Your task to perform on an android device: turn off javascript in the chrome app Image 0: 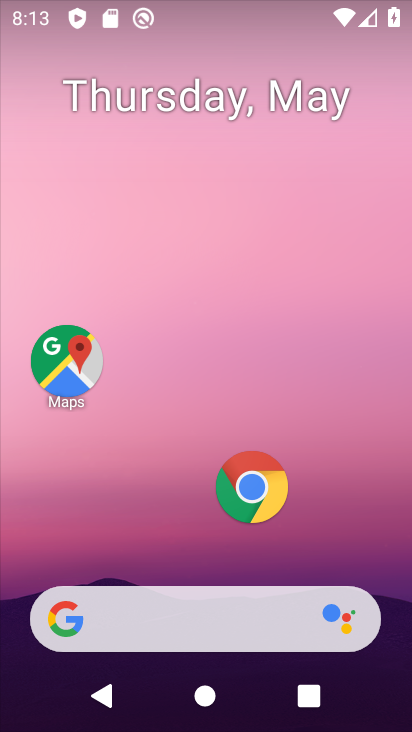
Step 0: drag from (277, 668) to (171, 107)
Your task to perform on an android device: turn off javascript in the chrome app Image 1: 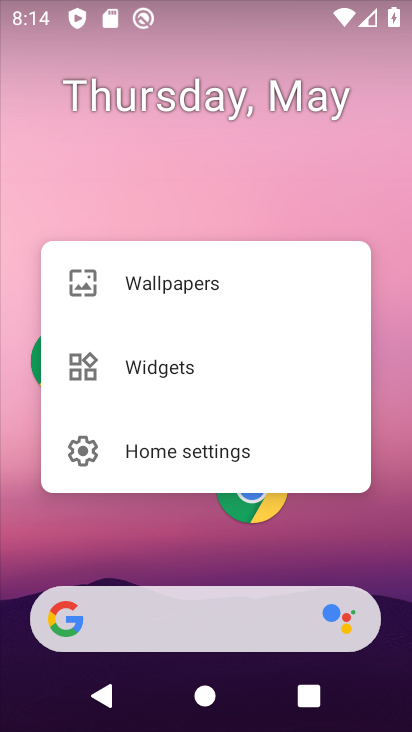
Step 1: click (204, 152)
Your task to perform on an android device: turn off javascript in the chrome app Image 2: 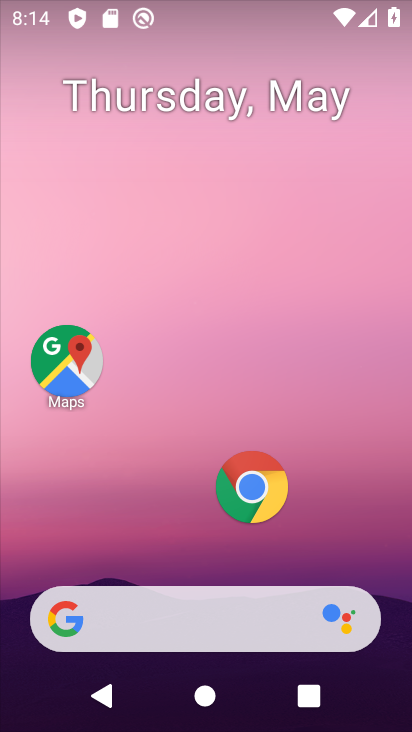
Step 2: click (205, 154)
Your task to perform on an android device: turn off javascript in the chrome app Image 3: 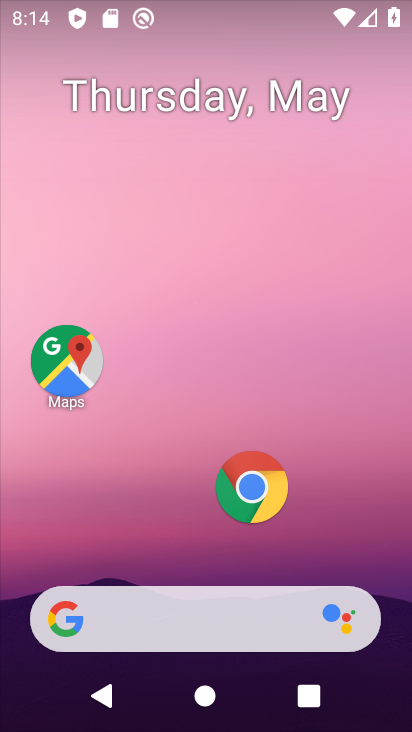
Step 3: drag from (295, 512) to (221, 85)
Your task to perform on an android device: turn off javascript in the chrome app Image 4: 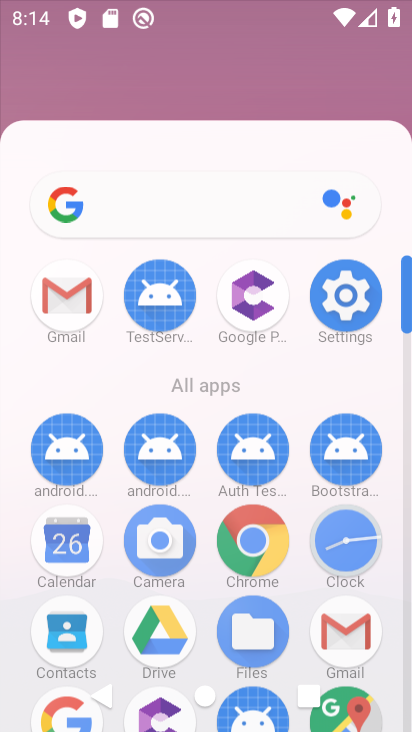
Step 4: drag from (395, 570) to (286, 183)
Your task to perform on an android device: turn off javascript in the chrome app Image 5: 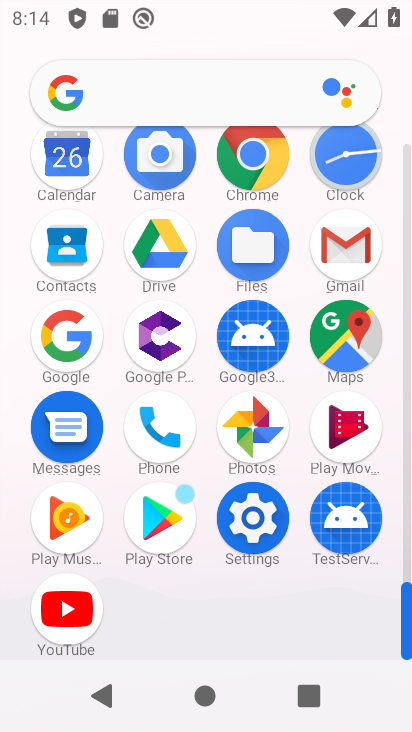
Step 5: click (247, 172)
Your task to perform on an android device: turn off javascript in the chrome app Image 6: 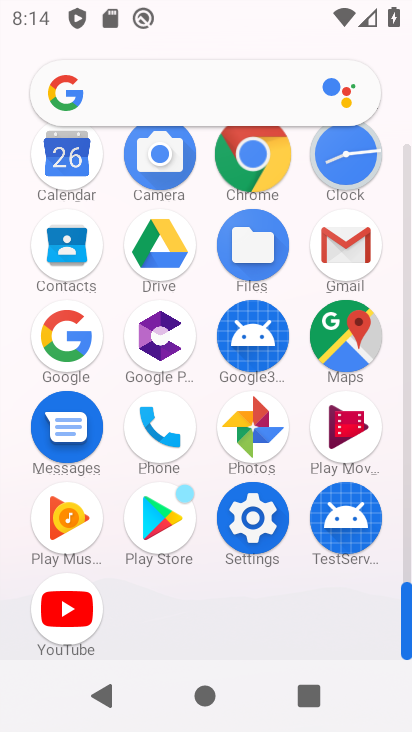
Step 6: click (247, 171)
Your task to perform on an android device: turn off javascript in the chrome app Image 7: 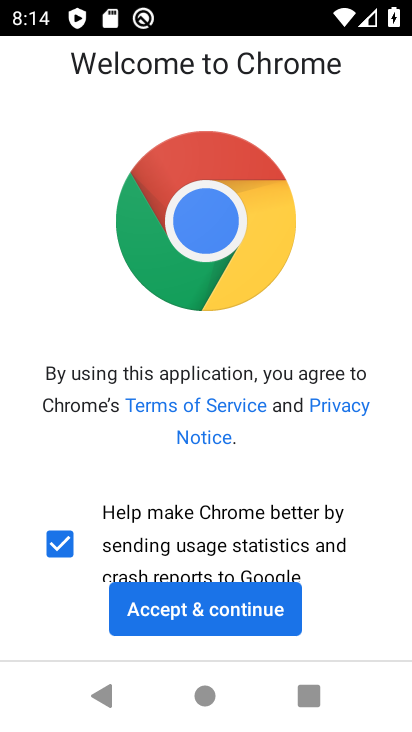
Step 7: click (216, 564)
Your task to perform on an android device: turn off javascript in the chrome app Image 8: 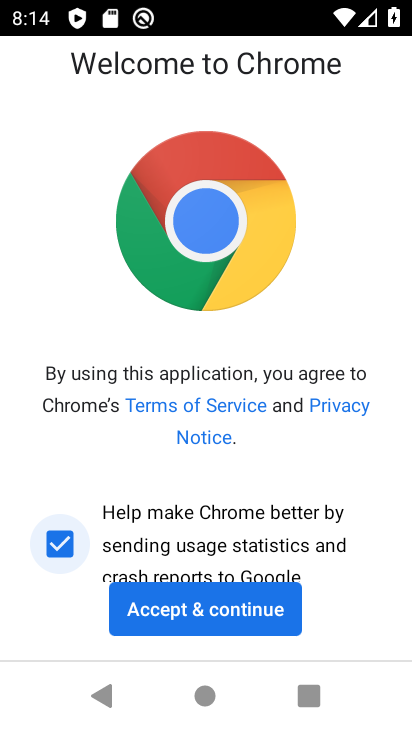
Step 8: click (231, 613)
Your task to perform on an android device: turn off javascript in the chrome app Image 9: 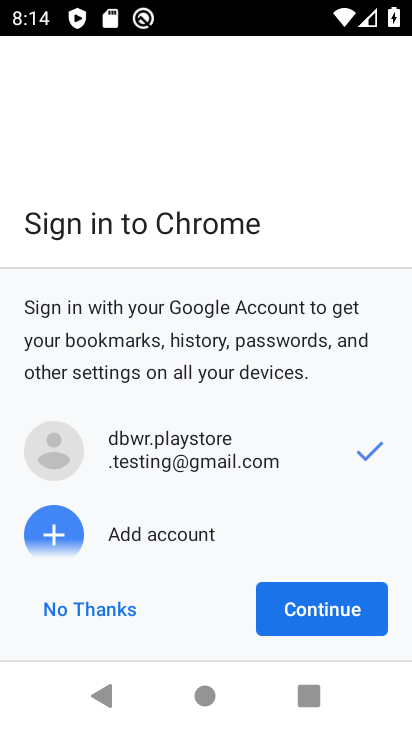
Step 9: click (340, 609)
Your task to perform on an android device: turn off javascript in the chrome app Image 10: 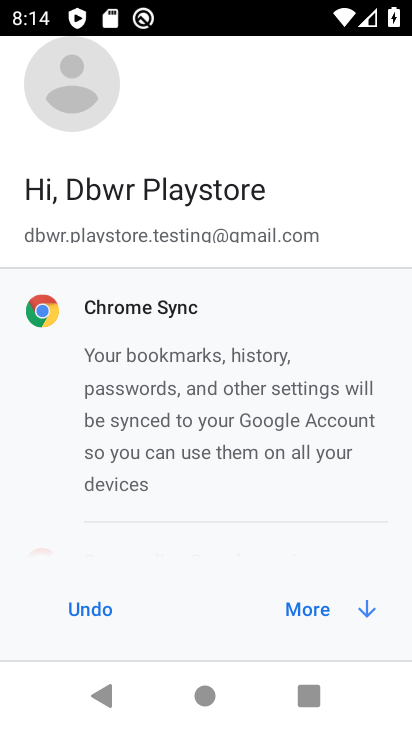
Step 10: click (340, 615)
Your task to perform on an android device: turn off javascript in the chrome app Image 11: 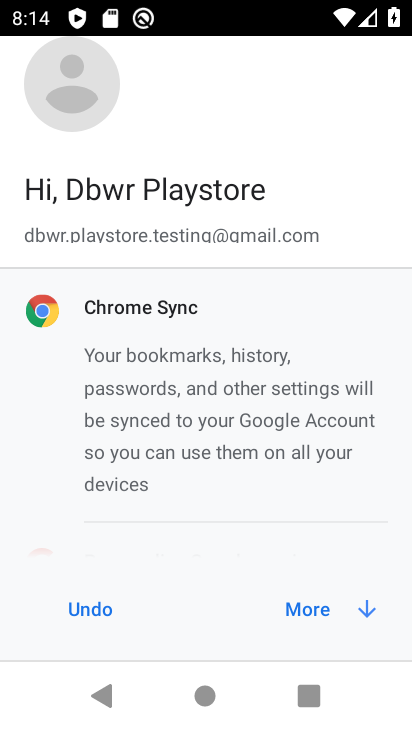
Step 11: click (339, 603)
Your task to perform on an android device: turn off javascript in the chrome app Image 12: 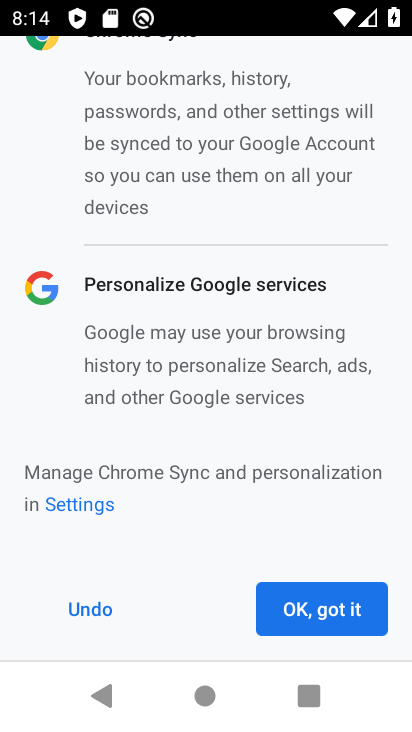
Step 12: click (344, 606)
Your task to perform on an android device: turn off javascript in the chrome app Image 13: 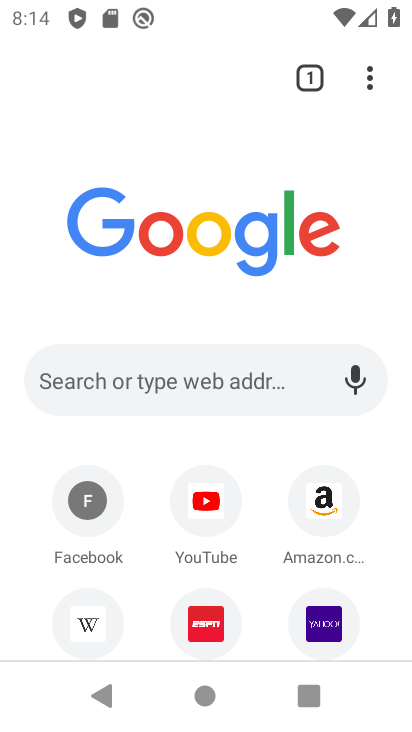
Step 13: drag from (368, 72) to (101, 556)
Your task to perform on an android device: turn off javascript in the chrome app Image 14: 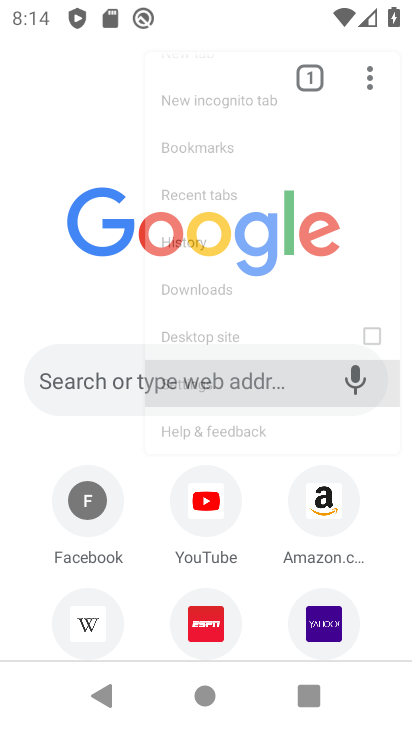
Step 14: click (97, 552)
Your task to perform on an android device: turn off javascript in the chrome app Image 15: 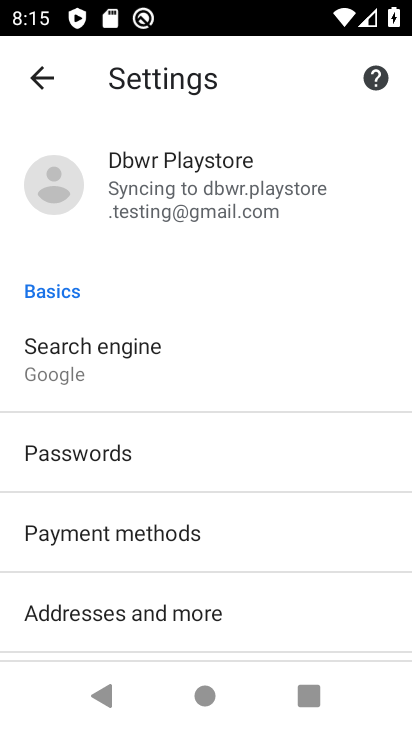
Step 15: drag from (198, 496) to (168, 129)
Your task to perform on an android device: turn off javascript in the chrome app Image 16: 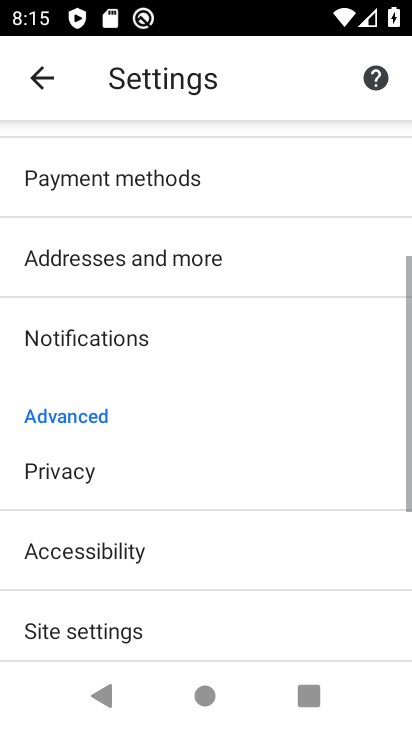
Step 16: click (115, 87)
Your task to perform on an android device: turn off javascript in the chrome app Image 17: 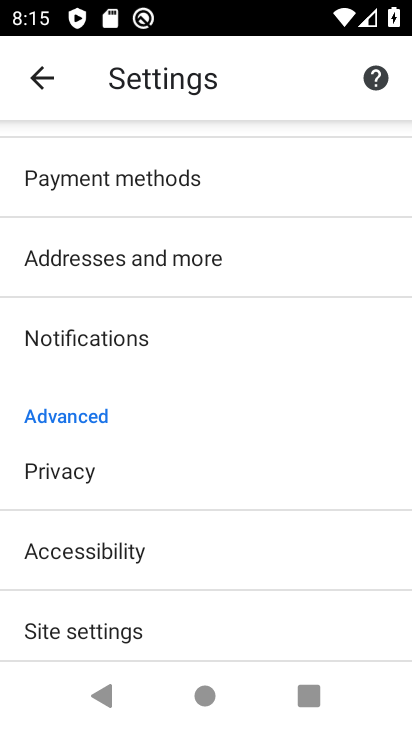
Step 17: drag from (140, 411) to (106, 96)
Your task to perform on an android device: turn off javascript in the chrome app Image 18: 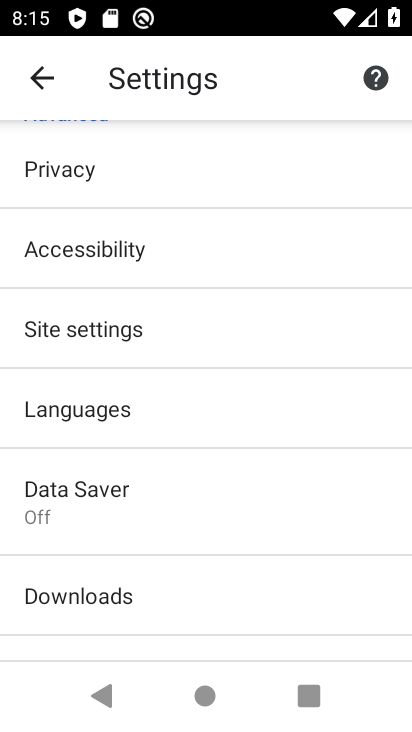
Step 18: click (72, 329)
Your task to perform on an android device: turn off javascript in the chrome app Image 19: 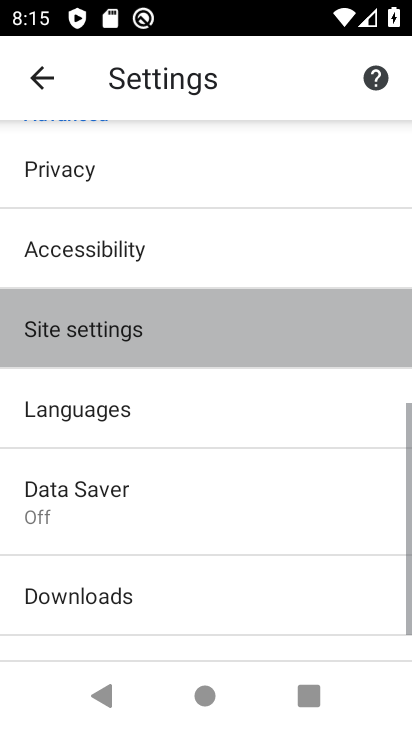
Step 19: click (72, 328)
Your task to perform on an android device: turn off javascript in the chrome app Image 20: 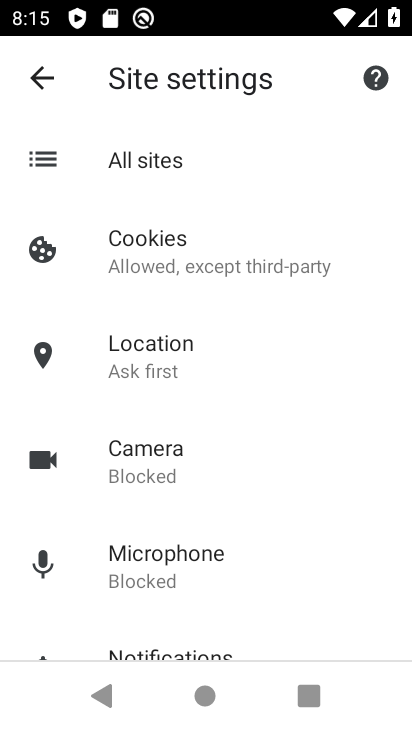
Step 20: drag from (192, 488) to (185, 69)
Your task to perform on an android device: turn off javascript in the chrome app Image 21: 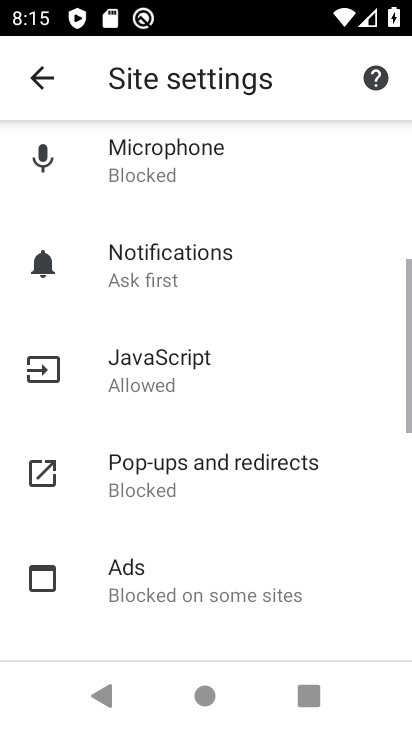
Step 21: drag from (163, 432) to (112, 146)
Your task to perform on an android device: turn off javascript in the chrome app Image 22: 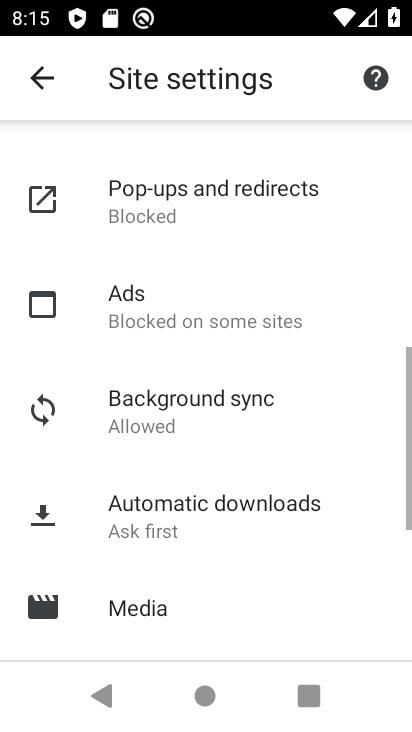
Step 22: drag from (143, 502) to (142, 222)
Your task to perform on an android device: turn off javascript in the chrome app Image 23: 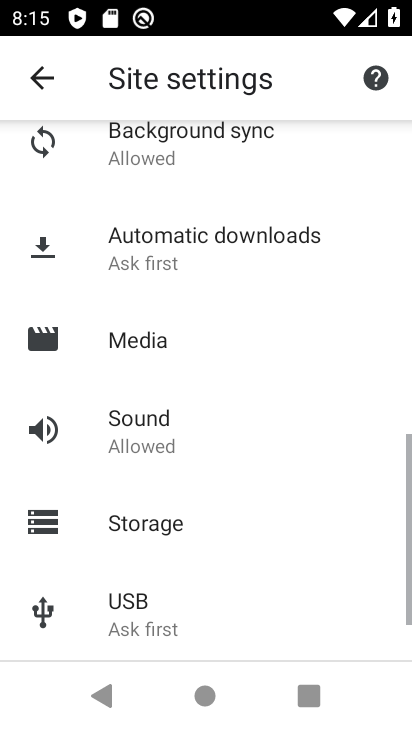
Step 23: drag from (147, 288) to (234, 599)
Your task to perform on an android device: turn off javascript in the chrome app Image 24: 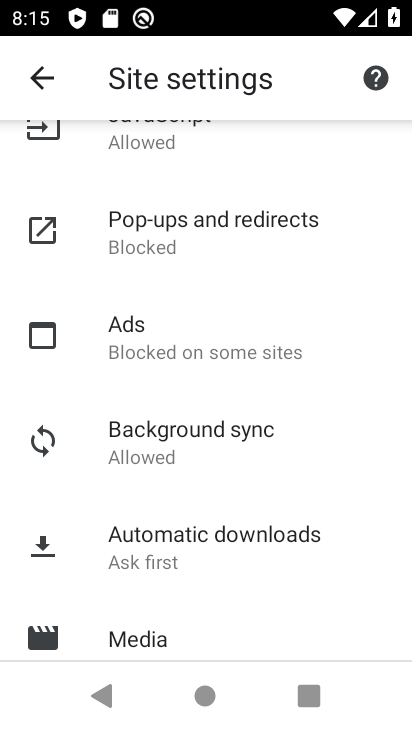
Step 24: click (246, 541)
Your task to perform on an android device: turn off javascript in the chrome app Image 25: 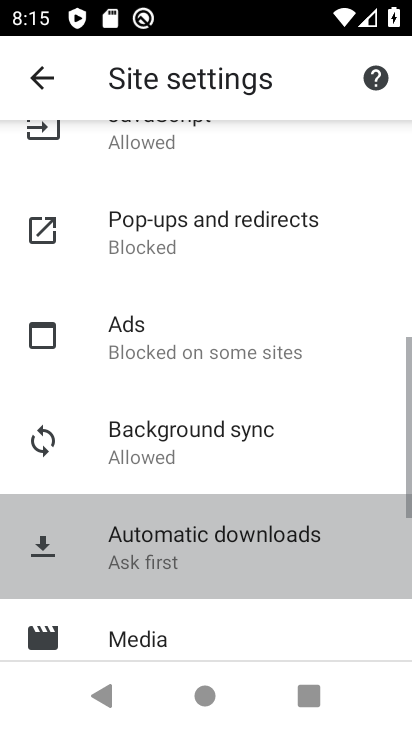
Step 25: click (223, 489)
Your task to perform on an android device: turn off javascript in the chrome app Image 26: 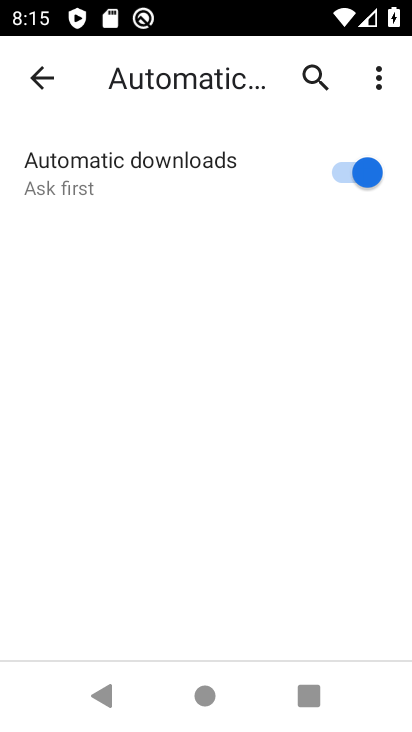
Step 26: click (135, 132)
Your task to perform on an android device: turn off javascript in the chrome app Image 27: 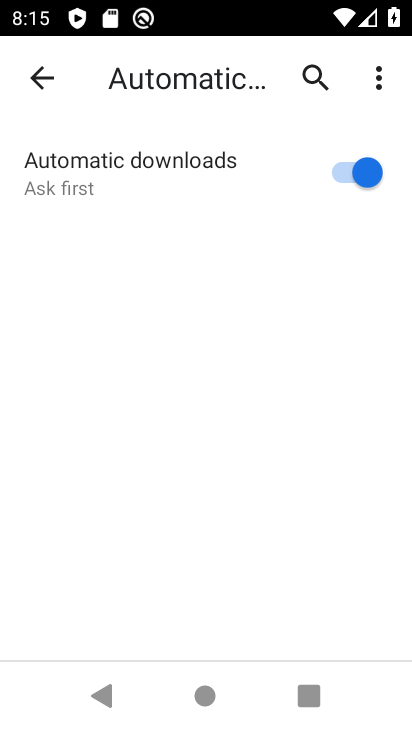
Step 27: click (135, 132)
Your task to perform on an android device: turn off javascript in the chrome app Image 28: 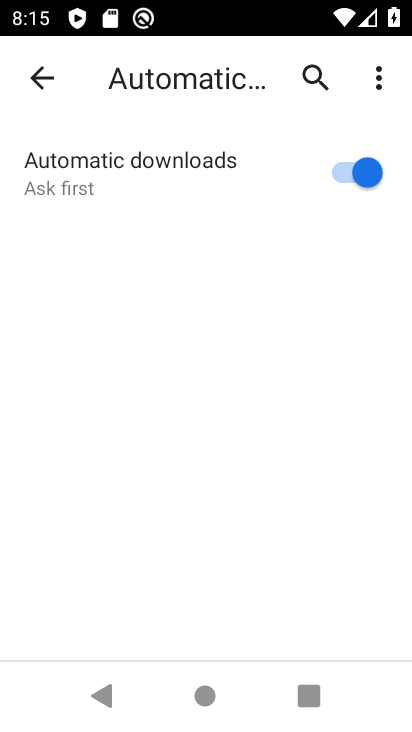
Step 28: click (37, 89)
Your task to perform on an android device: turn off javascript in the chrome app Image 29: 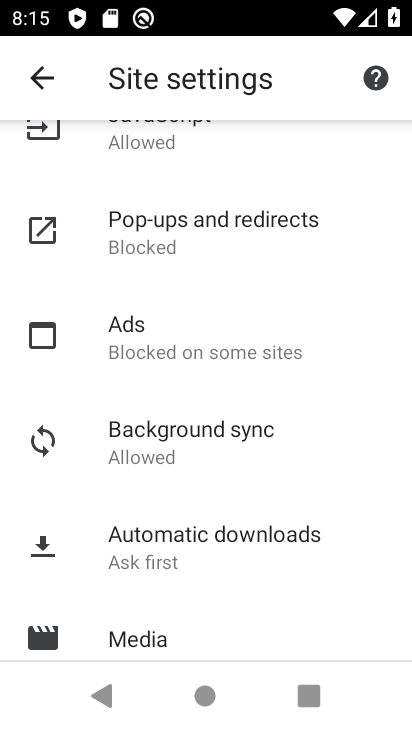
Step 29: drag from (144, 223) to (223, 669)
Your task to perform on an android device: turn off javascript in the chrome app Image 30: 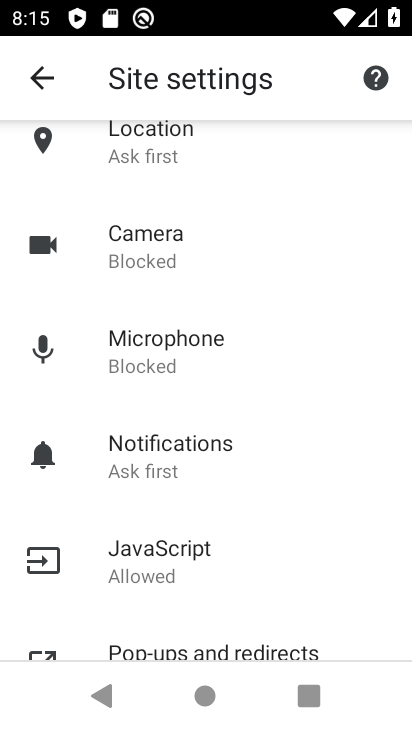
Step 30: click (147, 546)
Your task to perform on an android device: turn off javascript in the chrome app Image 31: 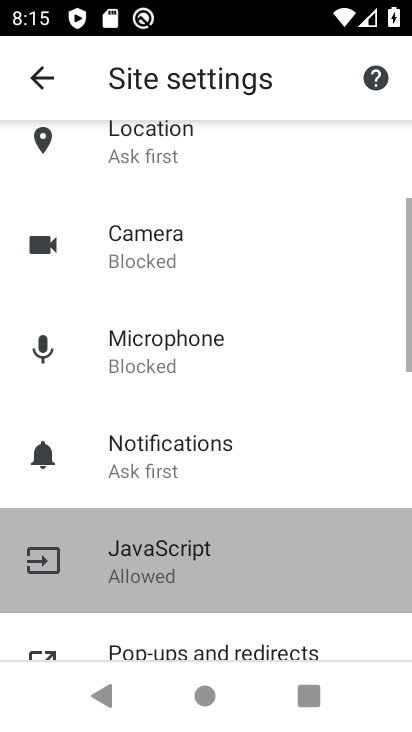
Step 31: click (147, 548)
Your task to perform on an android device: turn off javascript in the chrome app Image 32: 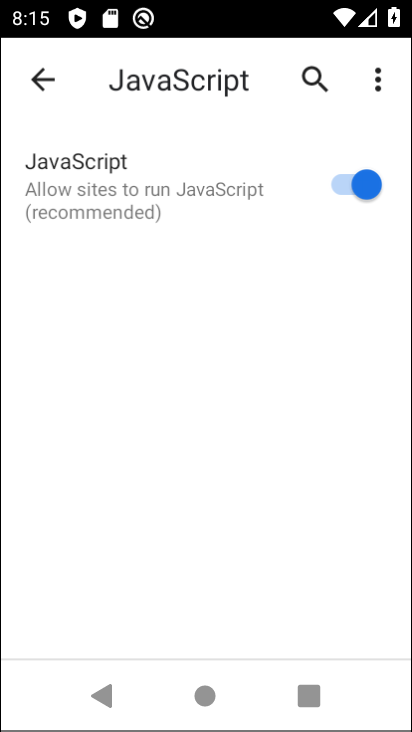
Step 32: click (149, 550)
Your task to perform on an android device: turn off javascript in the chrome app Image 33: 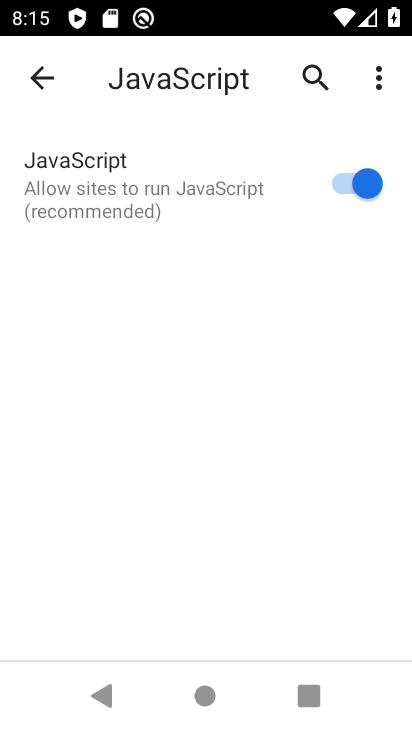
Step 33: click (367, 174)
Your task to perform on an android device: turn off javascript in the chrome app Image 34: 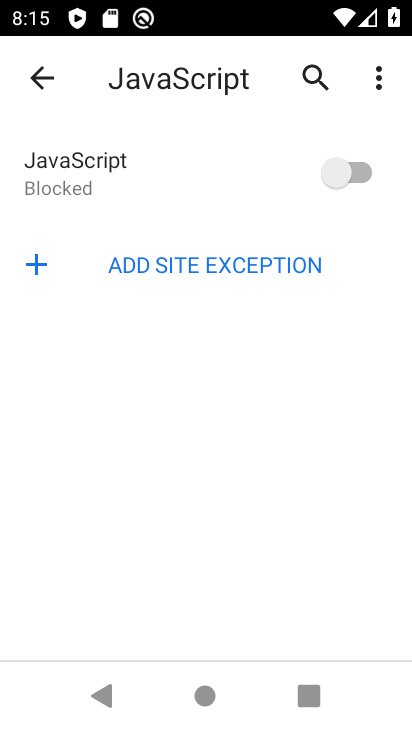
Step 34: task complete